Your task to perform on an android device: Open the stopwatch Image 0: 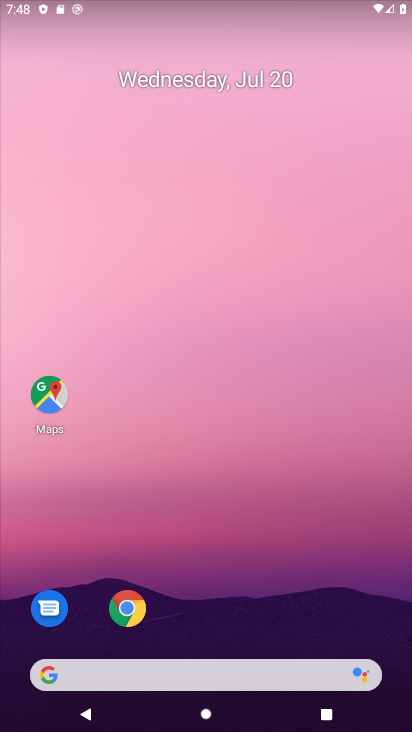
Step 0: drag from (242, 610) to (243, 215)
Your task to perform on an android device: Open the stopwatch Image 1: 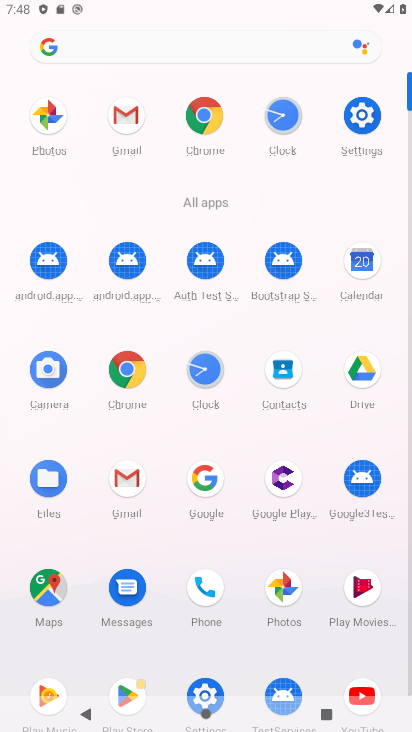
Step 1: click (202, 383)
Your task to perform on an android device: Open the stopwatch Image 2: 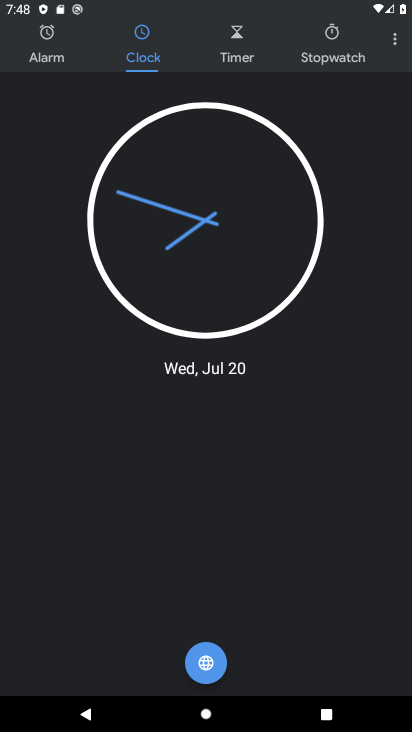
Step 2: click (322, 52)
Your task to perform on an android device: Open the stopwatch Image 3: 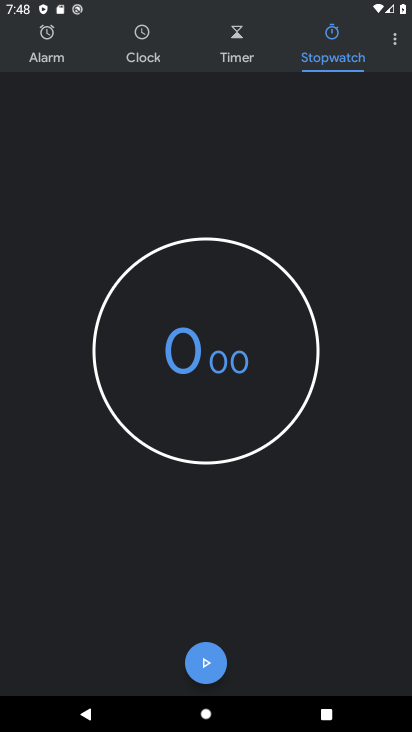
Step 3: click (209, 660)
Your task to perform on an android device: Open the stopwatch Image 4: 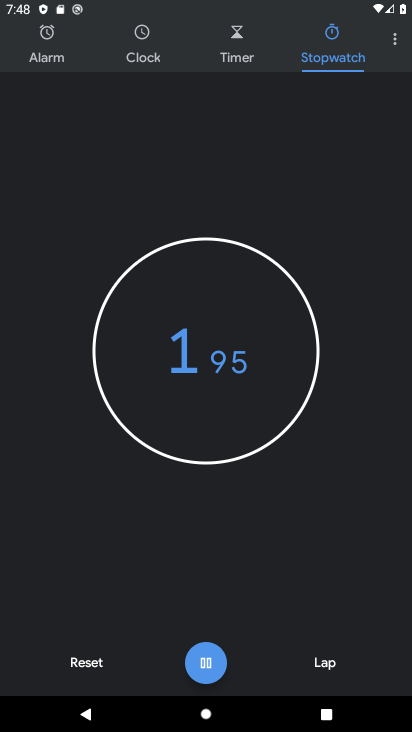
Step 4: task complete